Your task to perform on an android device: Open the map Image 0: 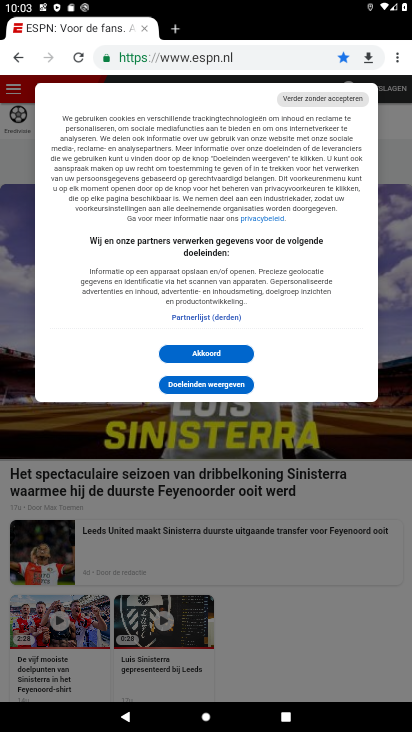
Step 0: press home button
Your task to perform on an android device: Open the map Image 1: 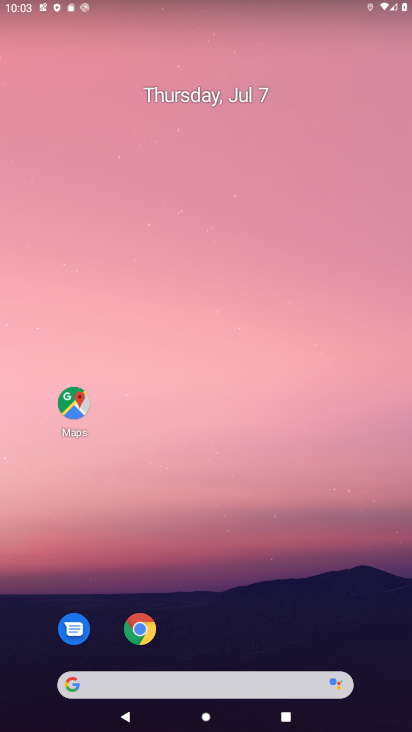
Step 1: click (74, 405)
Your task to perform on an android device: Open the map Image 2: 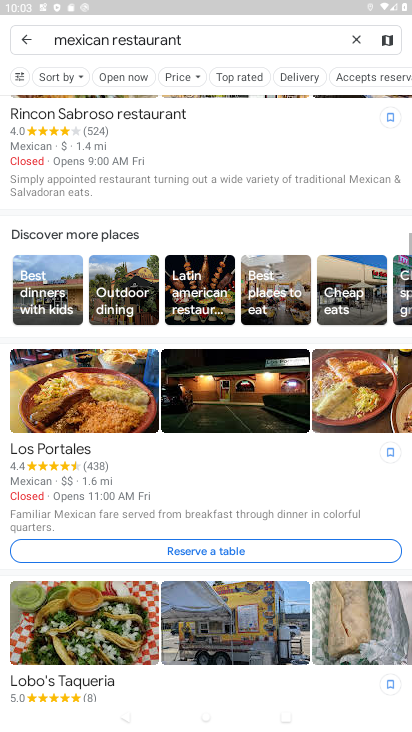
Step 2: click (353, 36)
Your task to perform on an android device: Open the map Image 3: 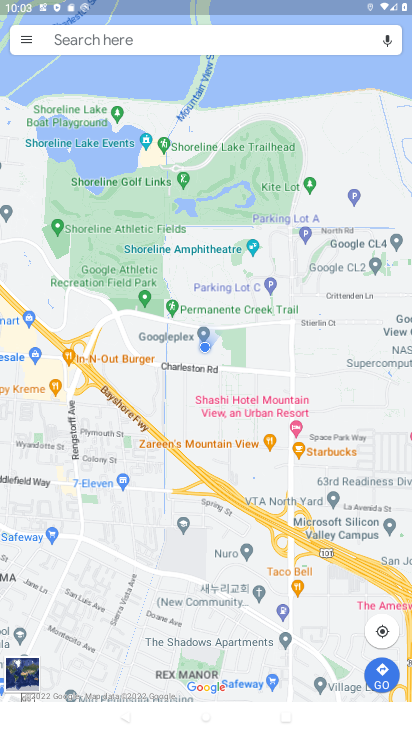
Step 3: task complete